Your task to perform on an android device: Open Reddit.com Image 0: 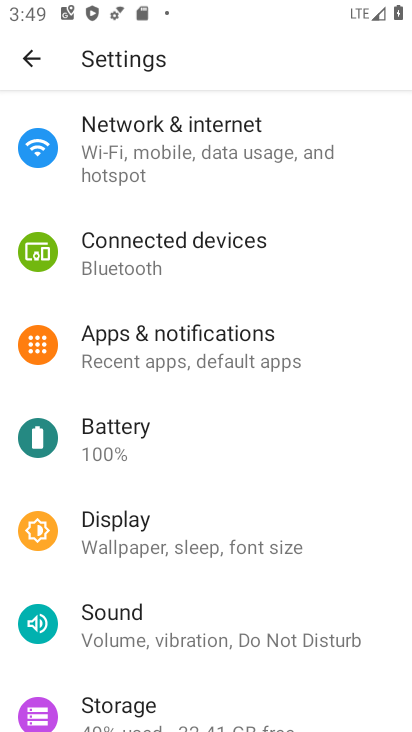
Step 0: press home button
Your task to perform on an android device: Open Reddit.com Image 1: 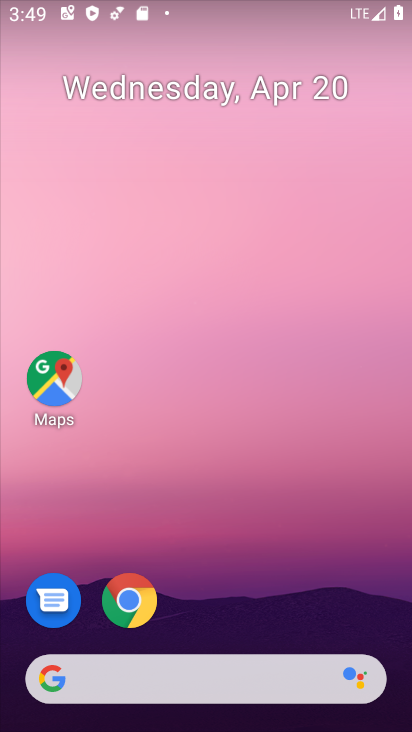
Step 1: drag from (220, 470) to (267, 36)
Your task to perform on an android device: Open Reddit.com Image 2: 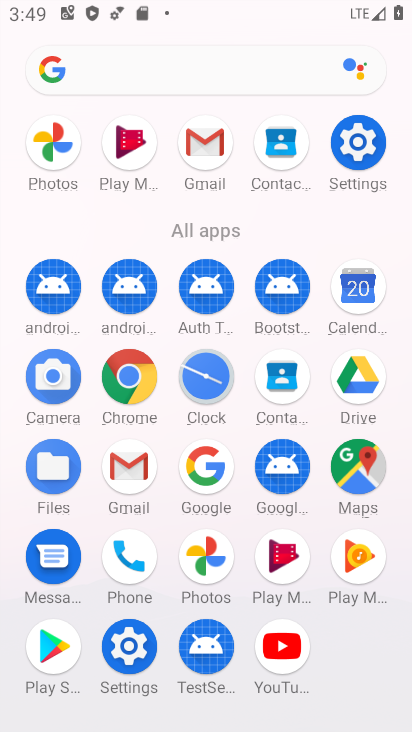
Step 2: click (135, 377)
Your task to perform on an android device: Open Reddit.com Image 3: 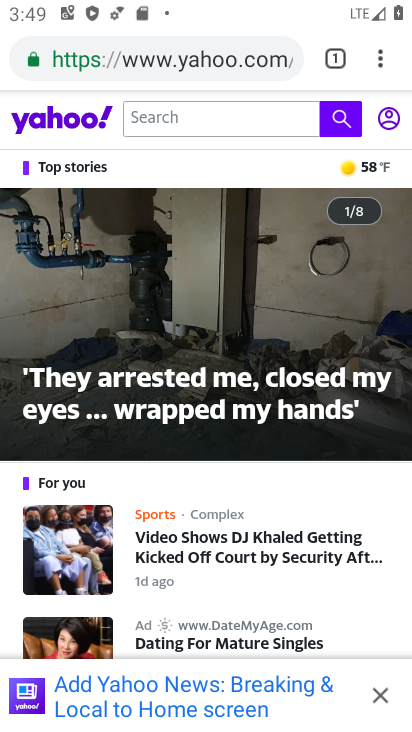
Step 3: click (216, 64)
Your task to perform on an android device: Open Reddit.com Image 4: 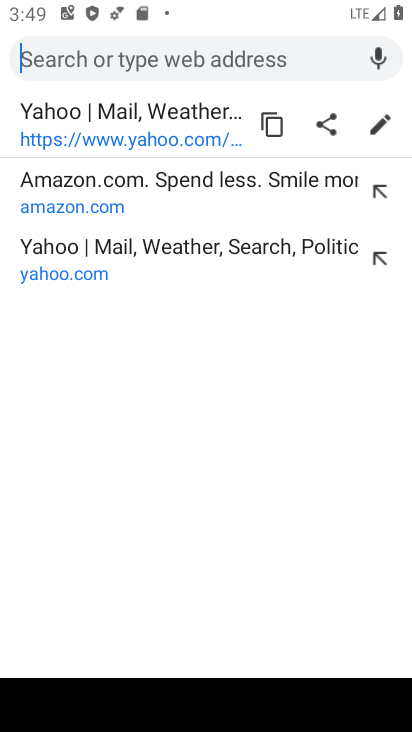
Step 4: type "reddit.com"
Your task to perform on an android device: Open Reddit.com Image 5: 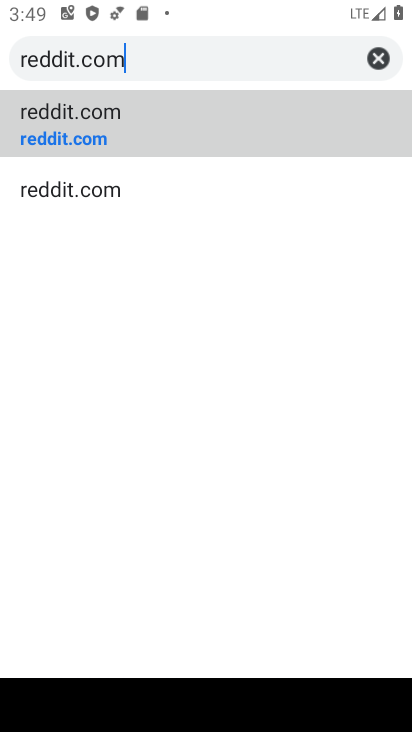
Step 5: click (44, 140)
Your task to perform on an android device: Open Reddit.com Image 6: 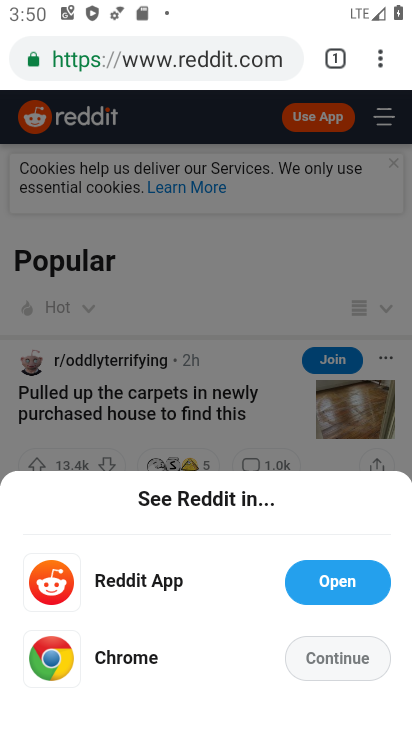
Step 6: click (351, 672)
Your task to perform on an android device: Open Reddit.com Image 7: 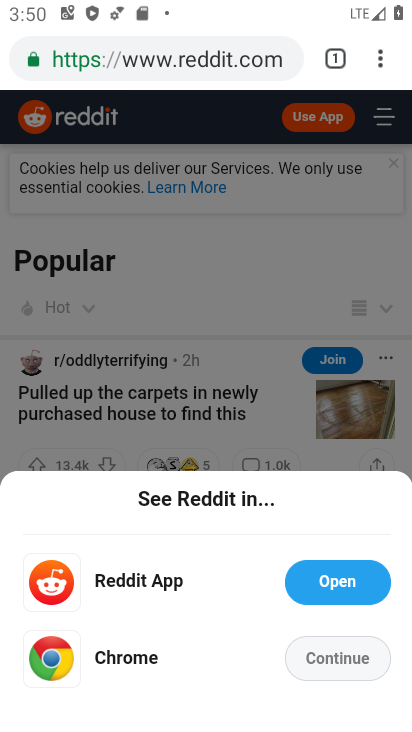
Step 7: click (349, 665)
Your task to perform on an android device: Open Reddit.com Image 8: 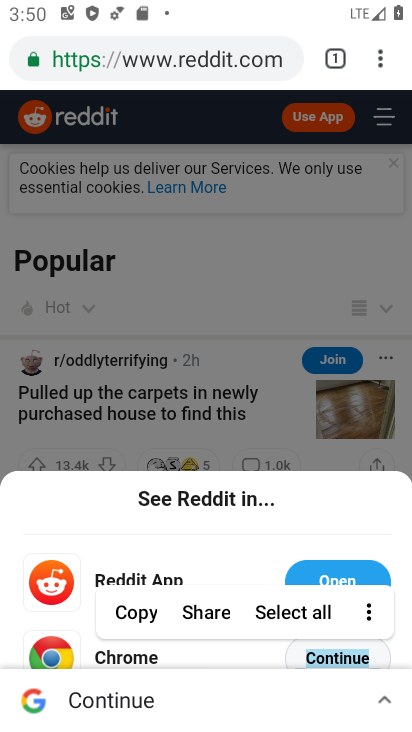
Step 8: click (351, 652)
Your task to perform on an android device: Open Reddit.com Image 9: 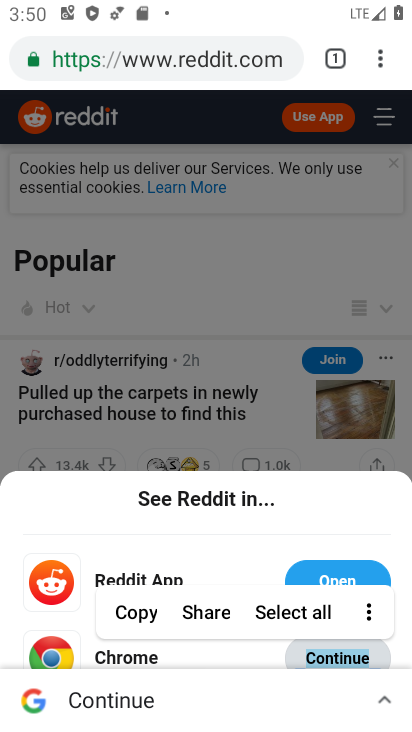
Step 9: click (348, 655)
Your task to perform on an android device: Open Reddit.com Image 10: 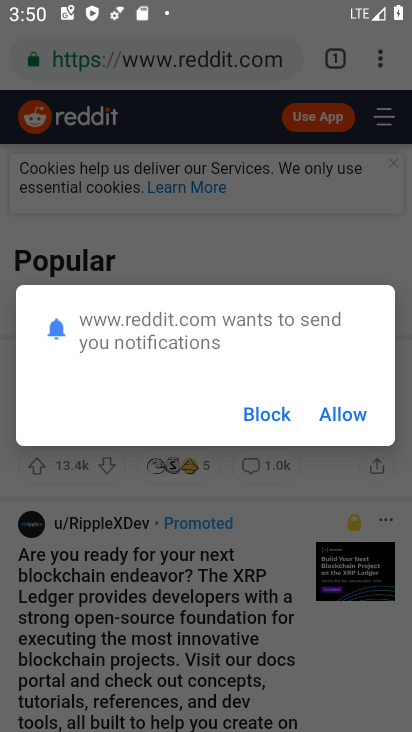
Step 10: task complete